Your task to perform on an android device: Open Google Chrome and open the bookmarks view Image 0: 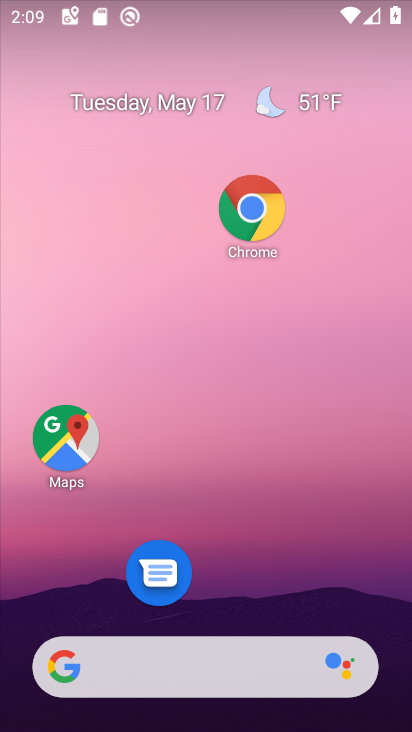
Step 0: drag from (223, 610) to (185, 48)
Your task to perform on an android device: Open Google Chrome and open the bookmarks view Image 1: 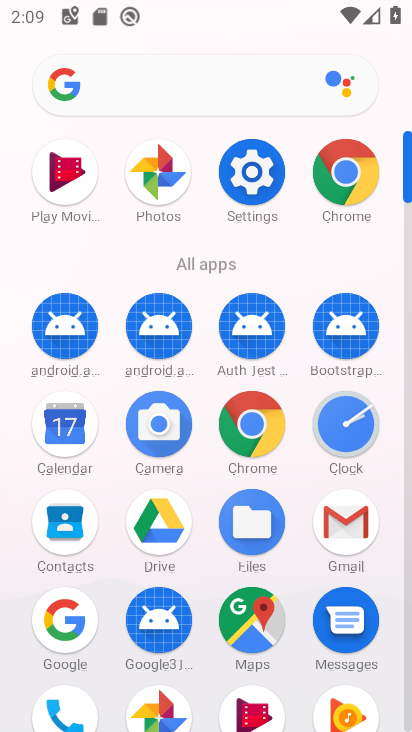
Step 1: click (353, 172)
Your task to perform on an android device: Open Google Chrome and open the bookmarks view Image 2: 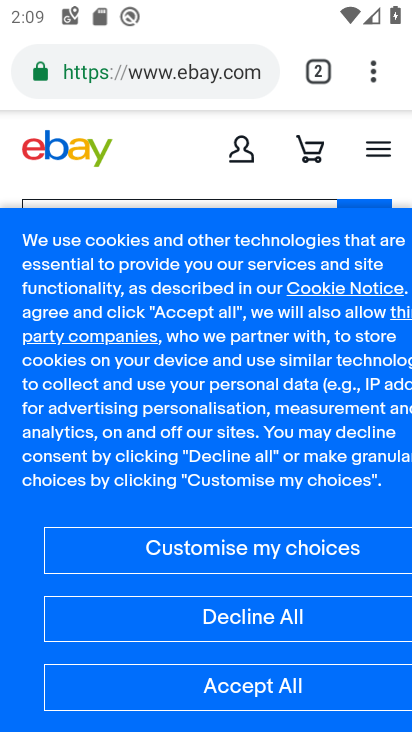
Step 2: click (372, 72)
Your task to perform on an android device: Open Google Chrome and open the bookmarks view Image 3: 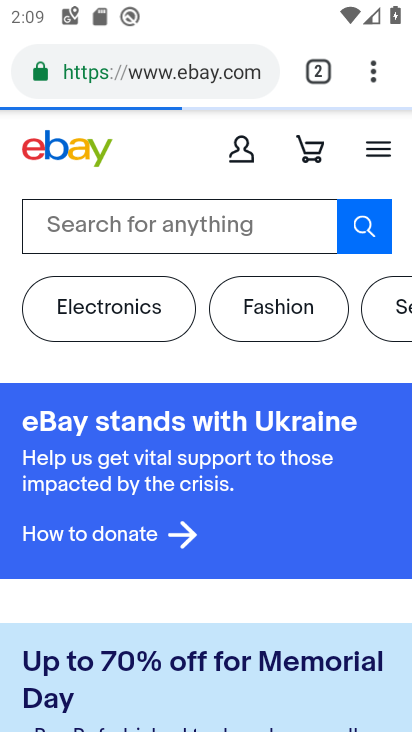
Step 3: task complete